Your task to perform on an android device: visit the assistant section in the google photos Image 0: 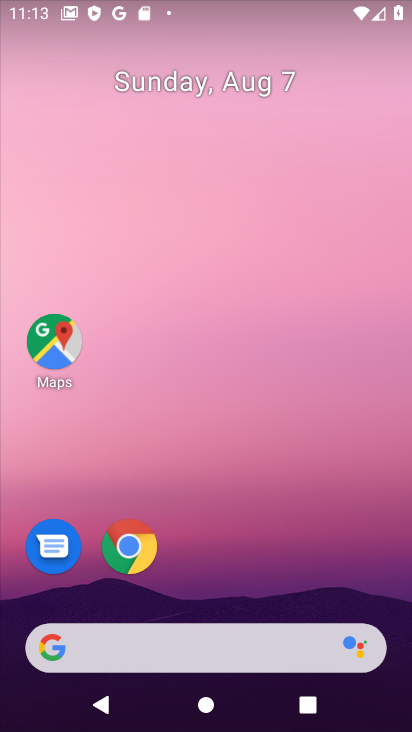
Step 0: drag from (235, 475) to (235, 378)
Your task to perform on an android device: visit the assistant section in the google photos Image 1: 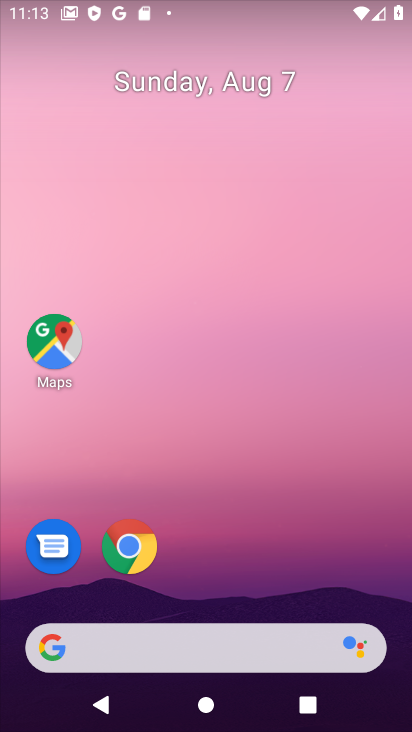
Step 1: click (223, 250)
Your task to perform on an android device: visit the assistant section in the google photos Image 2: 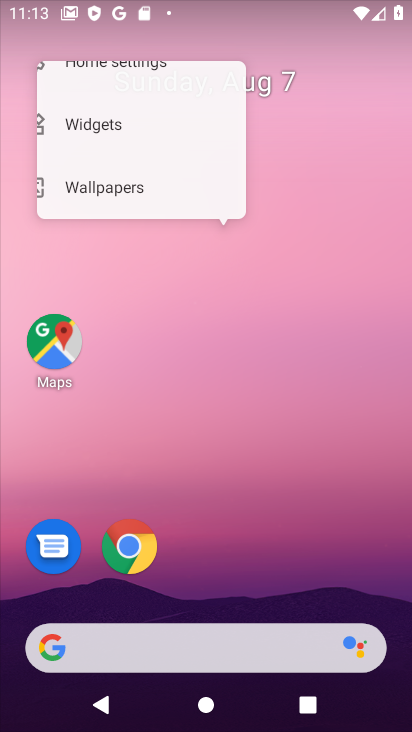
Step 2: drag from (241, 458) to (236, 162)
Your task to perform on an android device: visit the assistant section in the google photos Image 3: 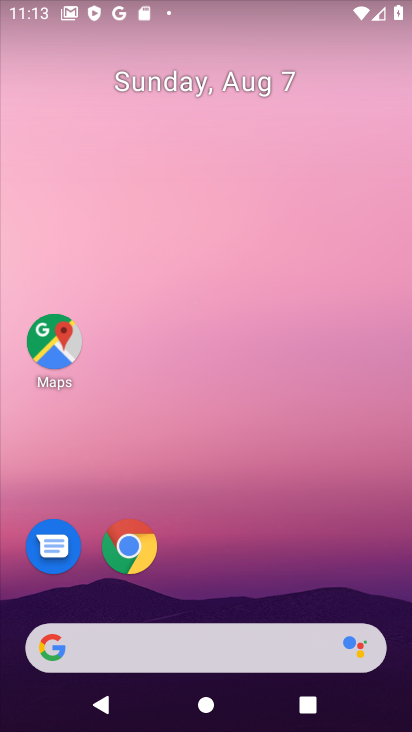
Step 3: drag from (228, 473) to (218, 178)
Your task to perform on an android device: visit the assistant section in the google photos Image 4: 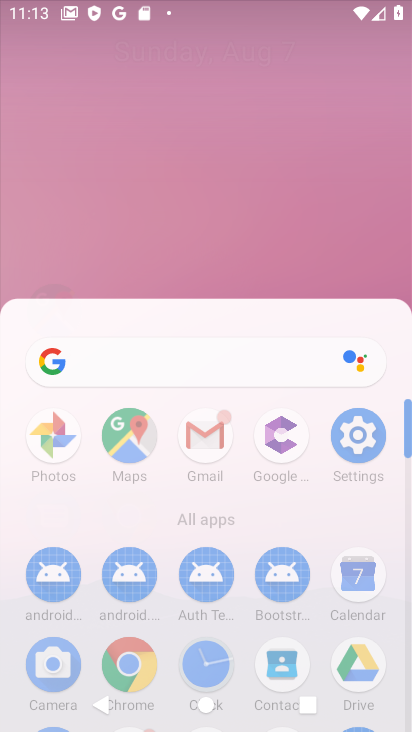
Step 4: drag from (287, 351) to (251, 146)
Your task to perform on an android device: visit the assistant section in the google photos Image 5: 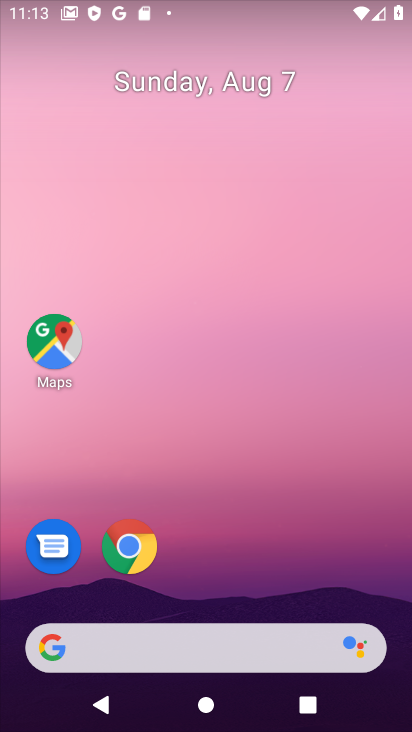
Step 5: drag from (235, 395) to (198, 128)
Your task to perform on an android device: visit the assistant section in the google photos Image 6: 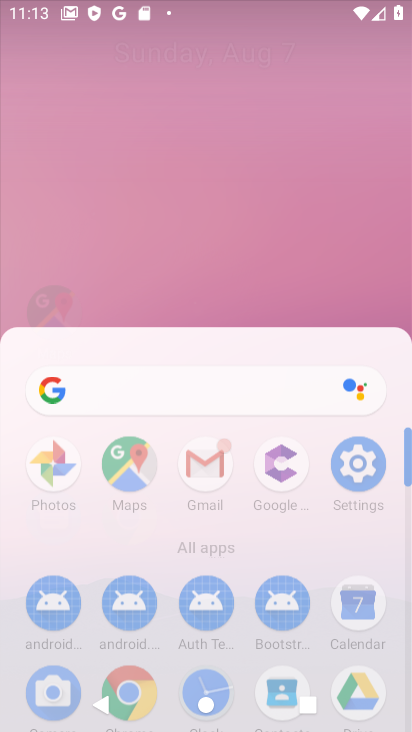
Step 6: drag from (224, 377) to (219, 218)
Your task to perform on an android device: visit the assistant section in the google photos Image 7: 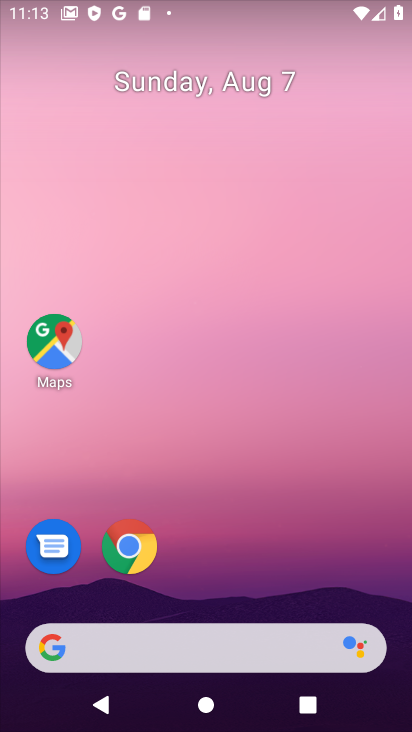
Step 7: drag from (224, 469) to (224, 171)
Your task to perform on an android device: visit the assistant section in the google photos Image 8: 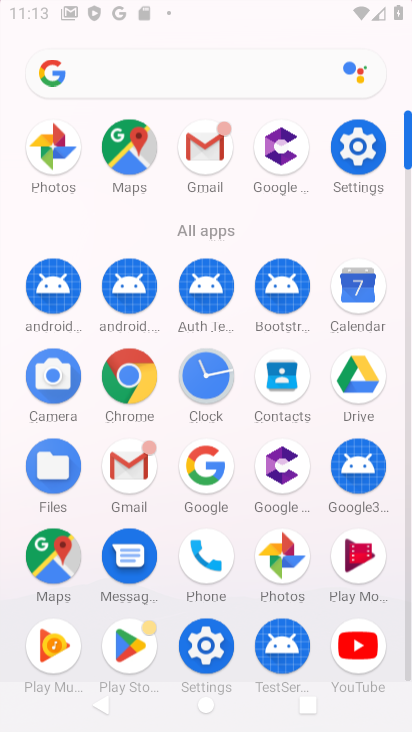
Step 8: drag from (220, 531) to (220, 242)
Your task to perform on an android device: visit the assistant section in the google photos Image 9: 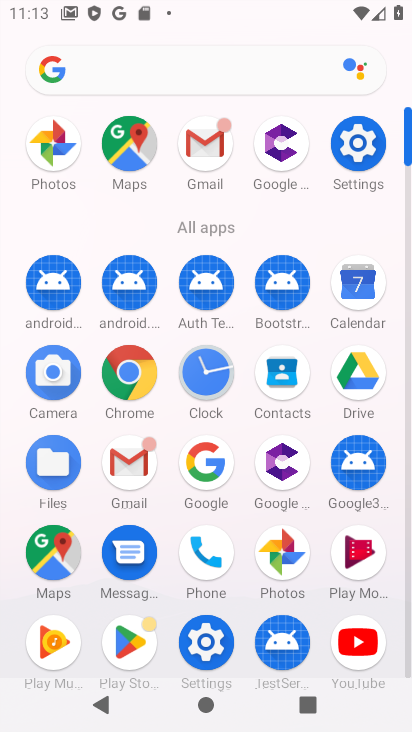
Step 9: click (273, 557)
Your task to perform on an android device: visit the assistant section in the google photos Image 10: 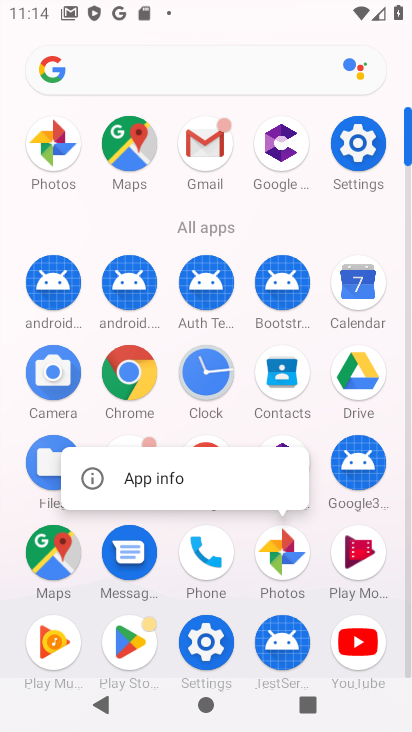
Step 10: click (273, 557)
Your task to perform on an android device: visit the assistant section in the google photos Image 11: 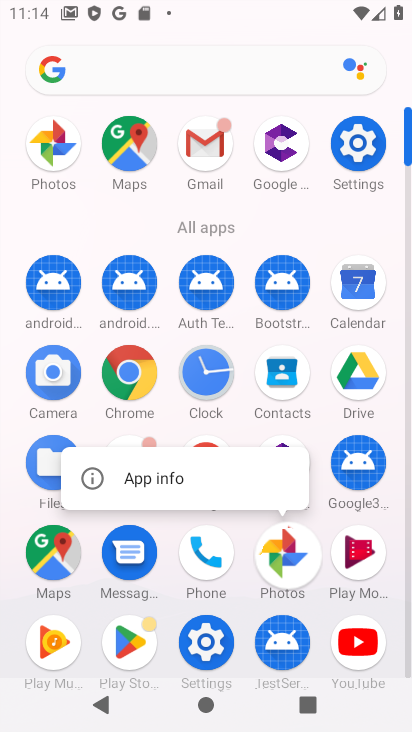
Step 11: click (279, 562)
Your task to perform on an android device: visit the assistant section in the google photos Image 12: 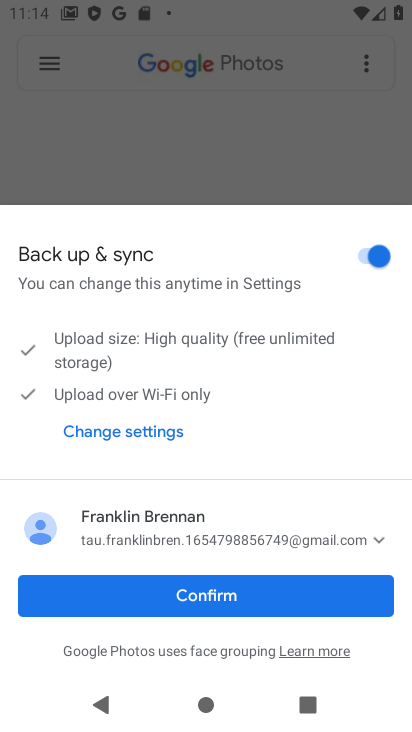
Step 12: press back button
Your task to perform on an android device: visit the assistant section in the google photos Image 13: 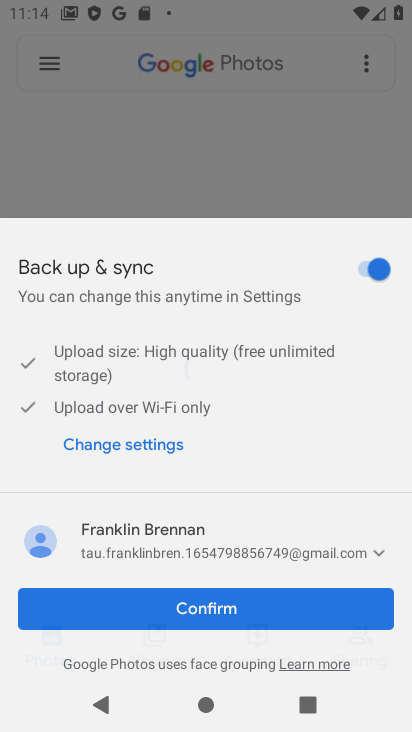
Step 13: press back button
Your task to perform on an android device: visit the assistant section in the google photos Image 14: 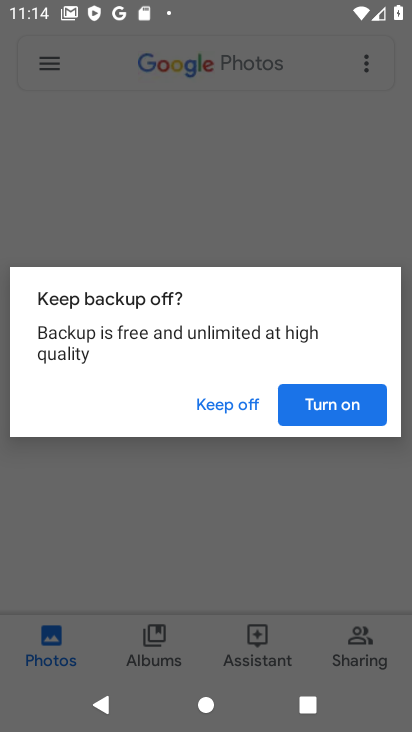
Step 14: press back button
Your task to perform on an android device: visit the assistant section in the google photos Image 15: 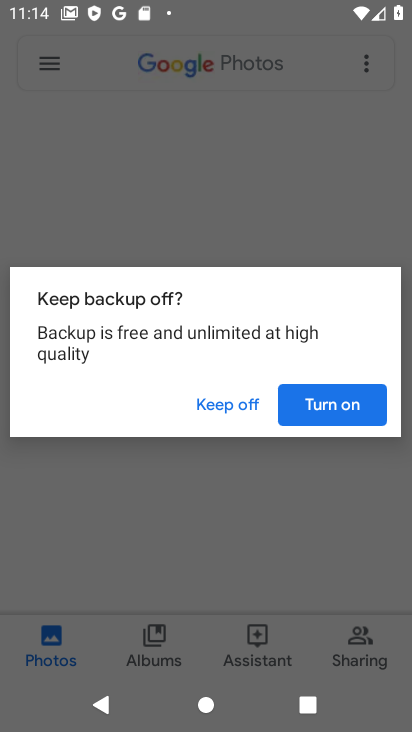
Step 15: press back button
Your task to perform on an android device: visit the assistant section in the google photos Image 16: 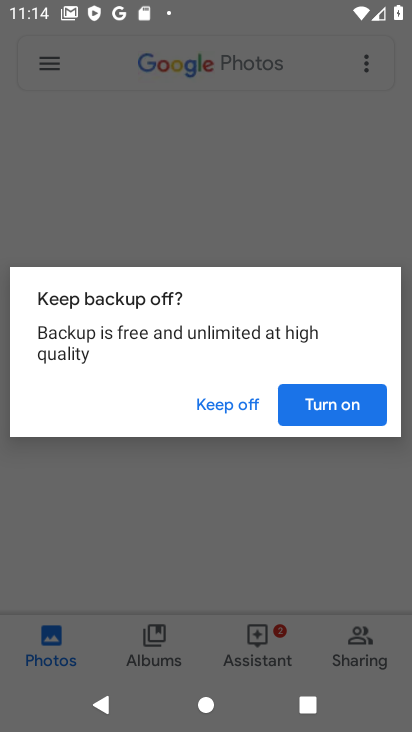
Step 16: press back button
Your task to perform on an android device: visit the assistant section in the google photos Image 17: 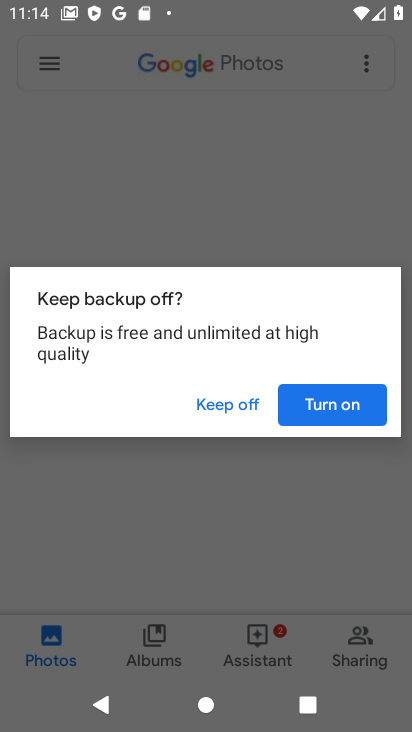
Step 17: click (228, 397)
Your task to perform on an android device: visit the assistant section in the google photos Image 18: 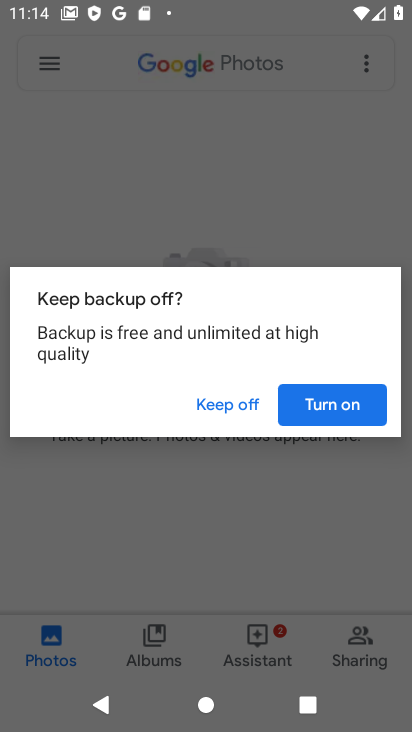
Step 18: click (229, 399)
Your task to perform on an android device: visit the assistant section in the google photos Image 19: 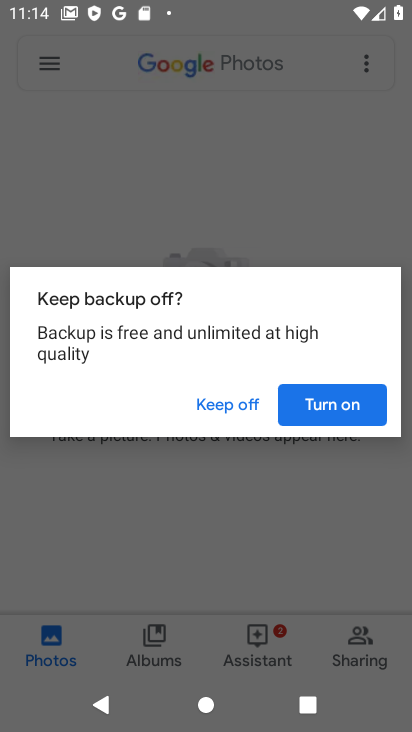
Step 19: click (244, 401)
Your task to perform on an android device: visit the assistant section in the google photos Image 20: 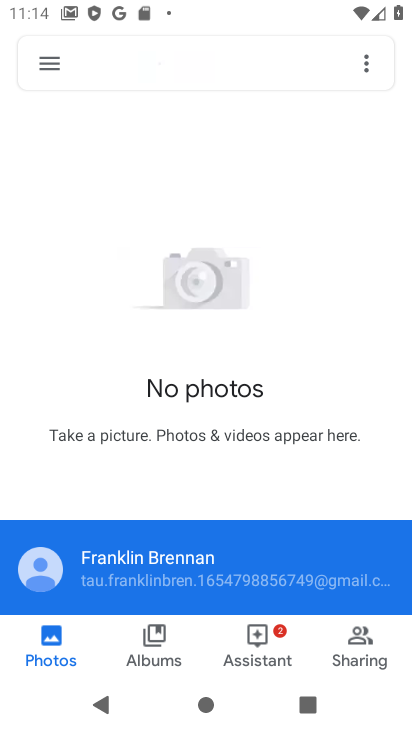
Step 20: click (256, 645)
Your task to perform on an android device: visit the assistant section in the google photos Image 21: 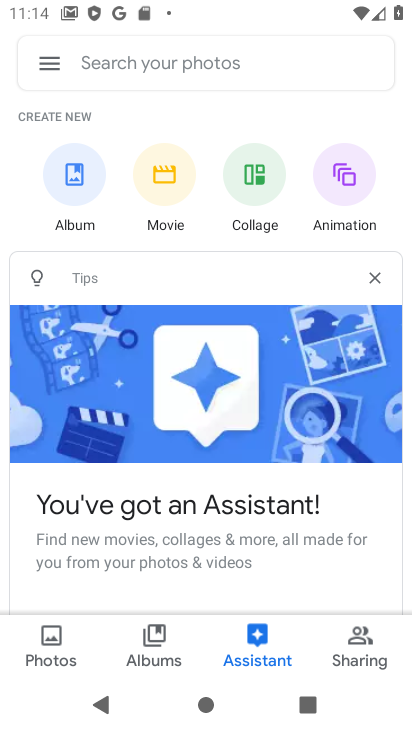
Step 21: task complete